Your task to perform on an android device: Open the stopwatch Image 0: 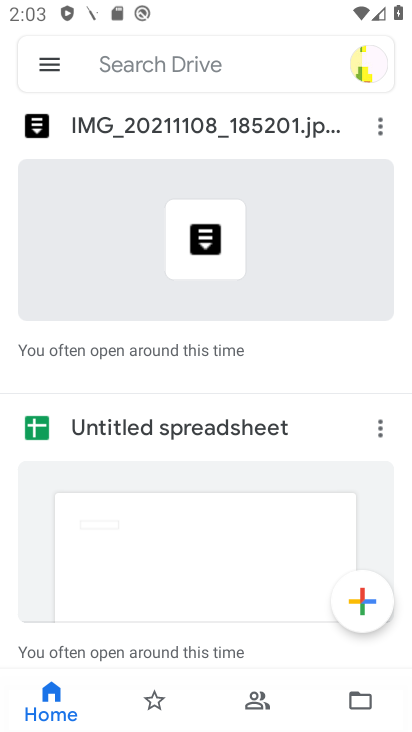
Step 0: press back button
Your task to perform on an android device: Open the stopwatch Image 1: 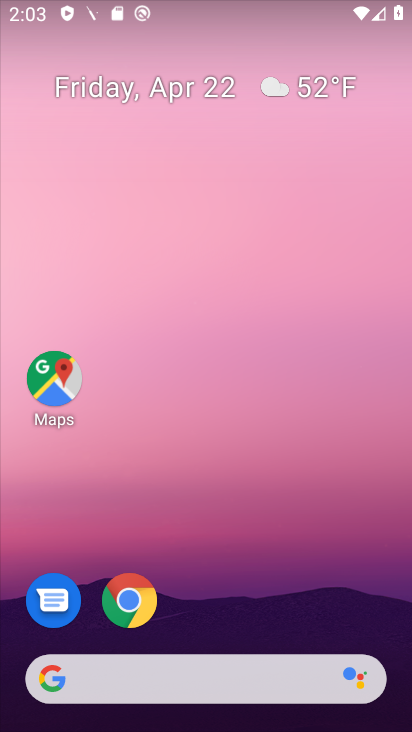
Step 1: drag from (251, 538) to (186, 18)
Your task to perform on an android device: Open the stopwatch Image 2: 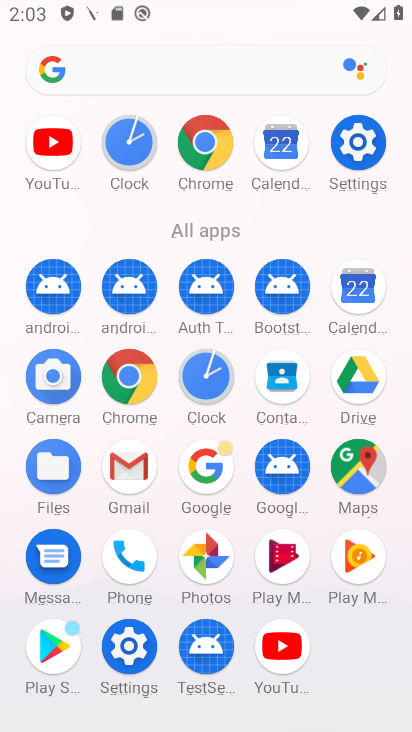
Step 2: click (203, 372)
Your task to perform on an android device: Open the stopwatch Image 3: 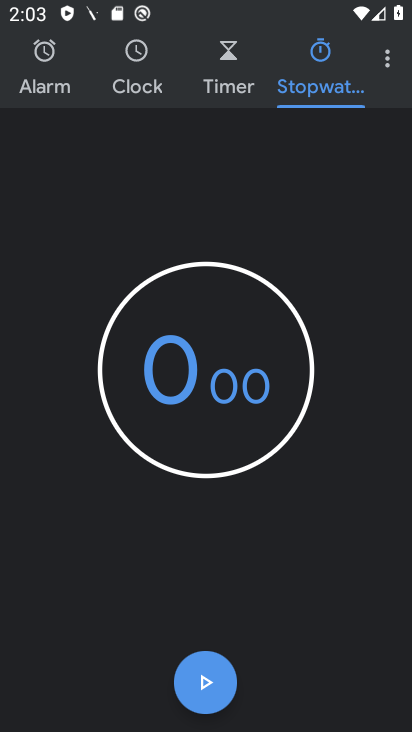
Step 3: task complete